Your task to perform on an android device: Clear the cart on target. Image 0: 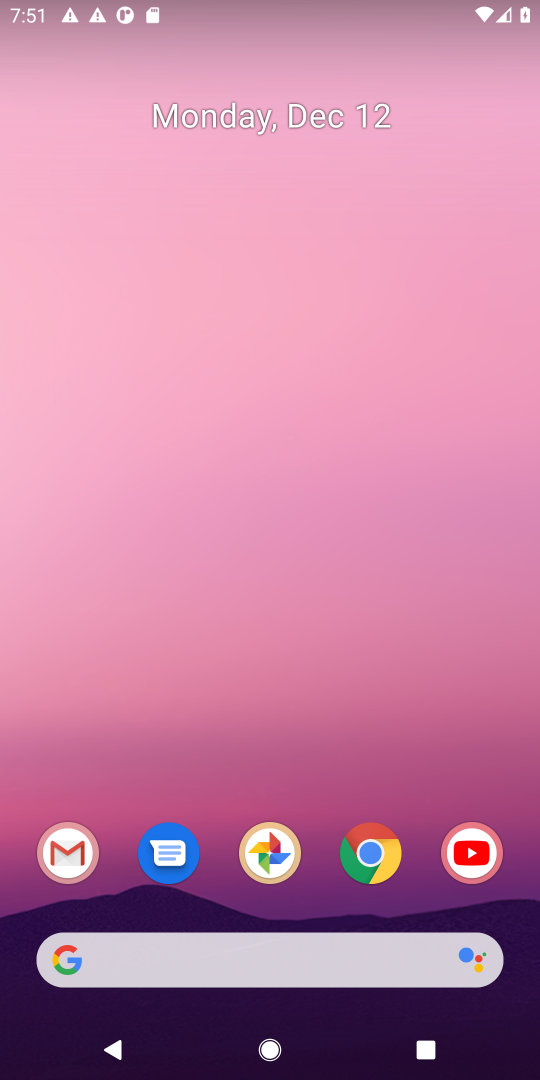
Step 0: click (372, 858)
Your task to perform on an android device: Clear the cart on target. Image 1: 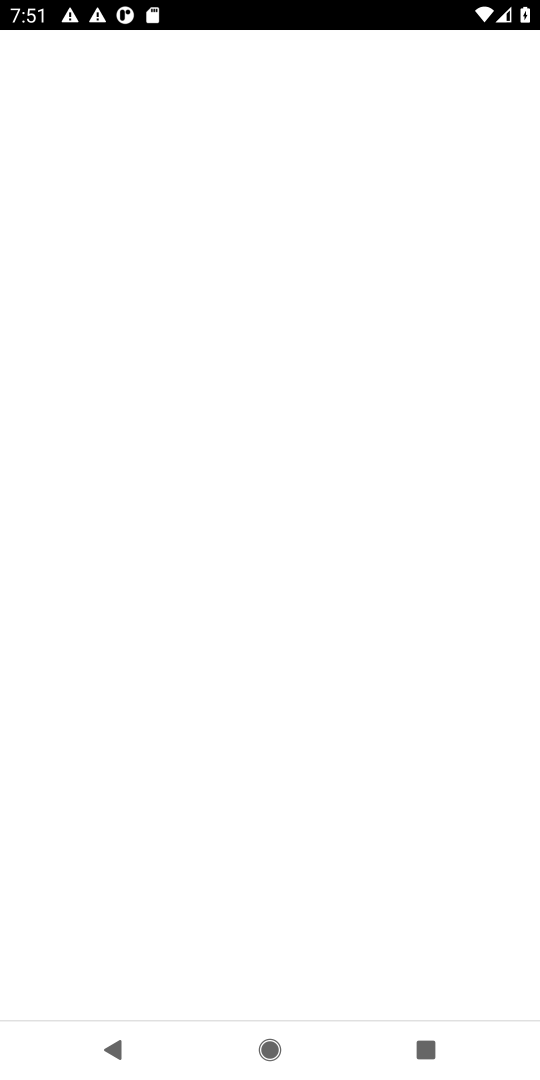
Step 1: task complete